Your task to perform on an android device: Open my contact list Image 0: 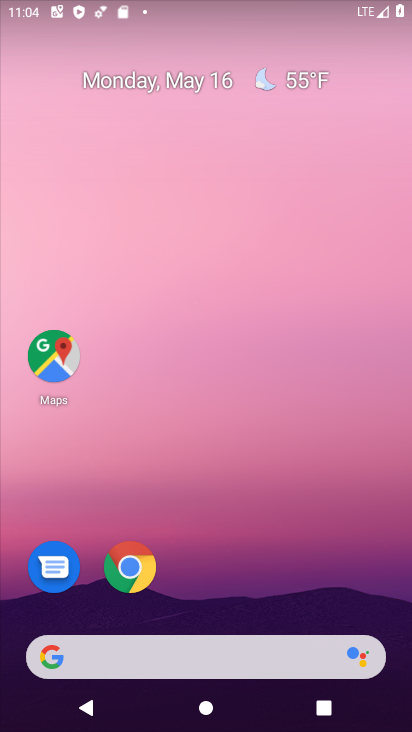
Step 0: drag from (201, 492) to (284, 190)
Your task to perform on an android device: Open my contact list Image 1: 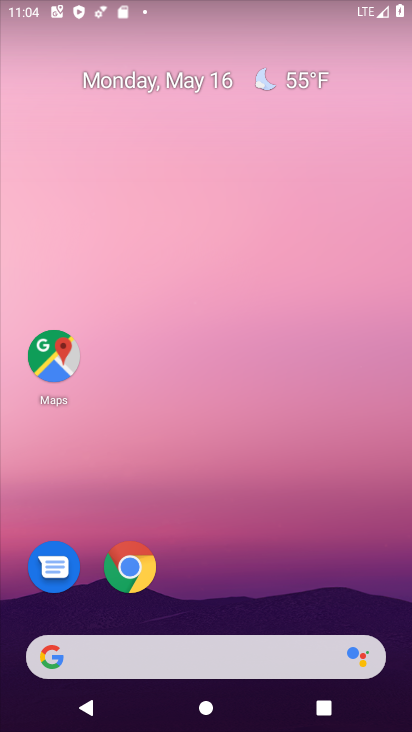
Step 1: drag from (191, 638) to (297, 84)
Your task to perform on an android device: Open my contact list Image 2: 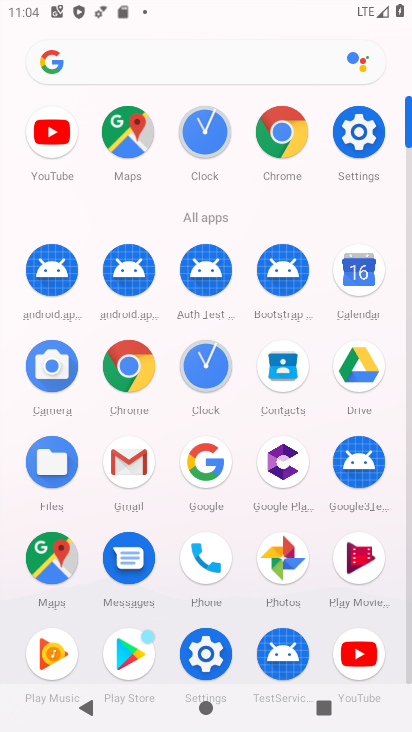
Step 2: click (283, 375)
Your task to perform on an android device: Open my contact list Image 3: 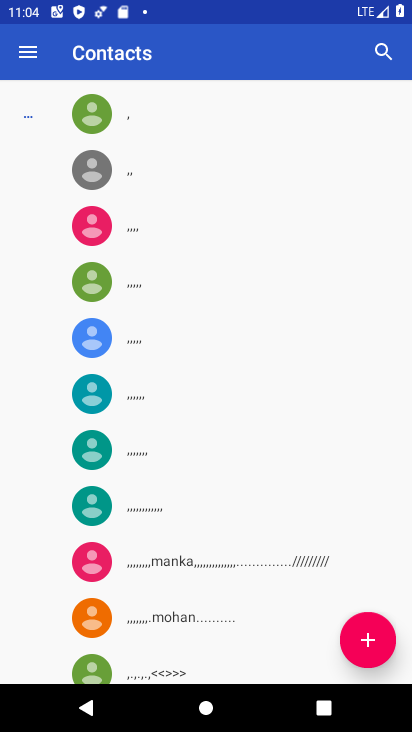
Step 3: task complete